Your task to perform on an android device: toggle show notifications on the lock screen Image 0: 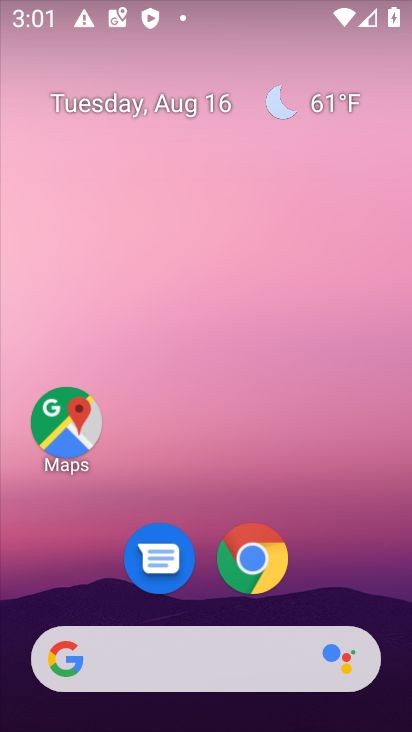
Step 0: drag from (393, 639) to (340, 192)
Your task to perform on an android device: toggle show notifications on the lock screen Image 1: 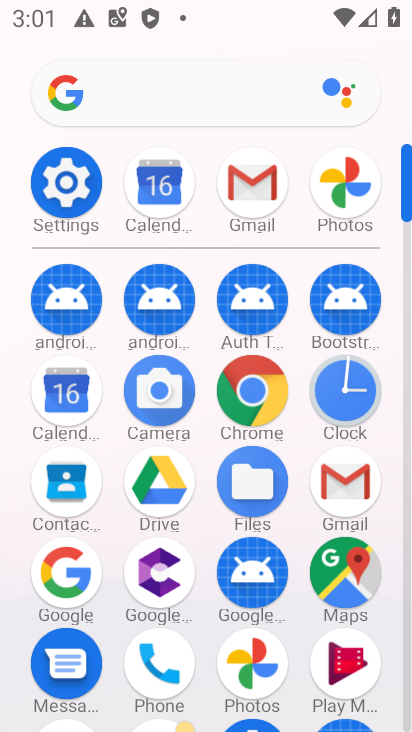
Step 1: click (405, 666)
Your task to perform on an android device: toggle show notifications on the lock screen Image 2: 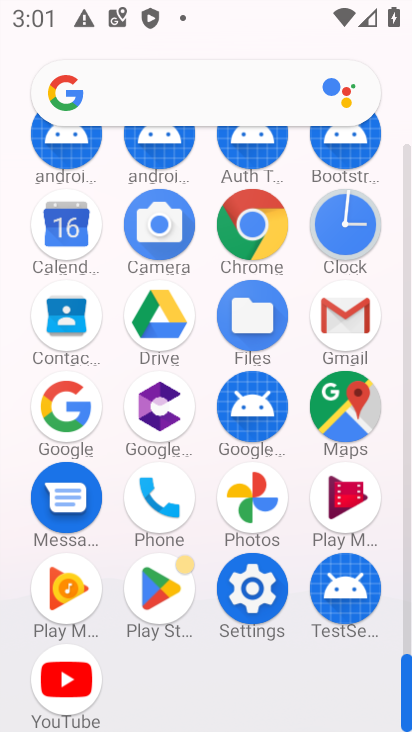
Step 2: click (253, 590)
Your task to perform on an android device: toggle show notifications on the lock screen Image 3: 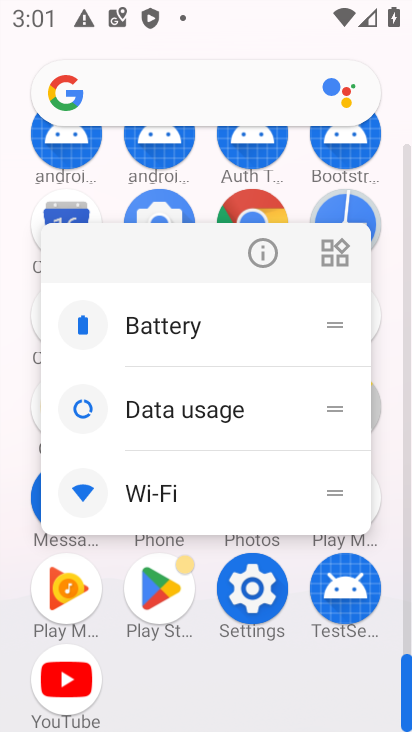
Step 3: click (253, 590)
Your task to perform on an android device: toggle show notifications on the lock screen Image 4: 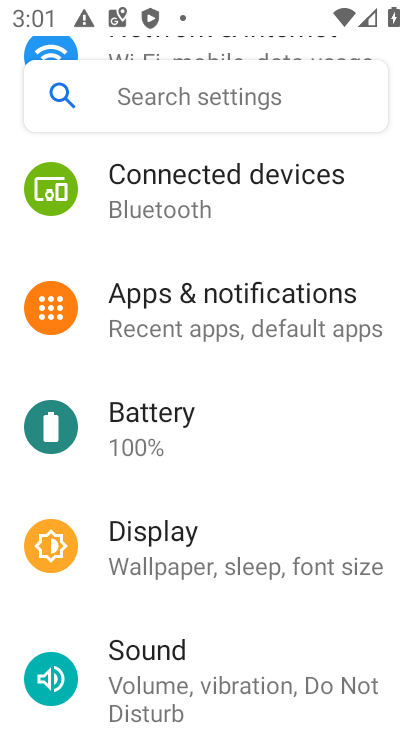
Step 4: click (198, 306)
Your task to perform on an android device: toggle show notifications on the lock screen Image 5: 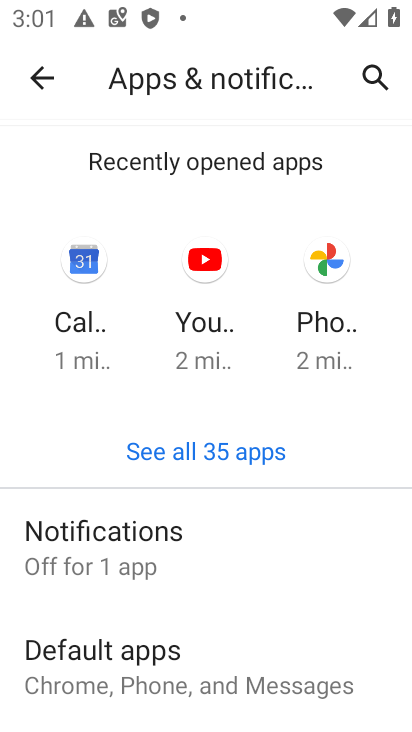
Step 5: drag from (305, 643) to (303, 344)
Your task to perform on an android device: toggle show notifications on the lock screen Image 6: 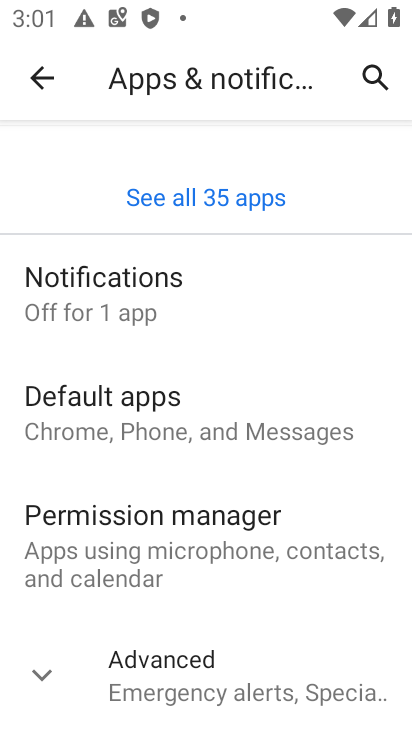
Step 6: click (97, 272)
Your task to perform on an android device: toggle show notifications on the lock screen Image 7: 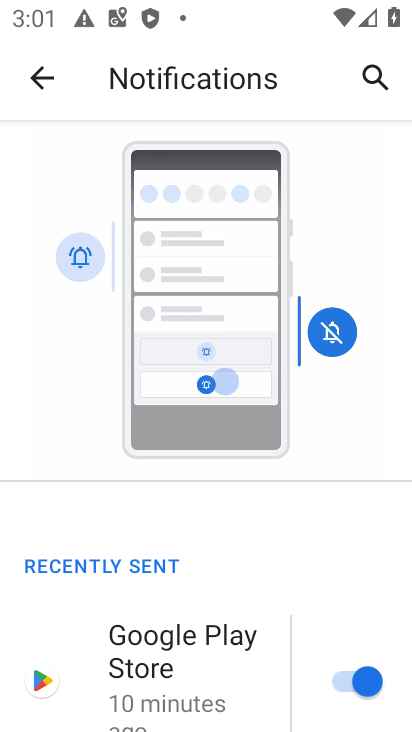
Step 7: drag from (273, 601) to (266, 168)
Your task to perform on an android device: toggle show notifications on the lock screen Image 8: 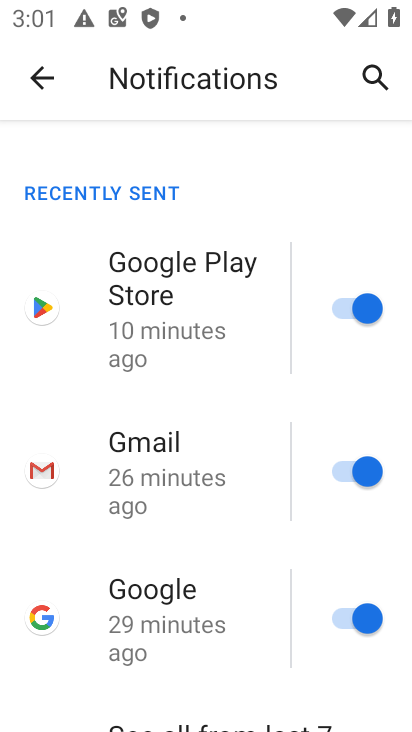
Step 8: drag from (296, 682) to (274, 319)
Your task to perform on an android device: toggle show notifications on the lock screen Image 9: 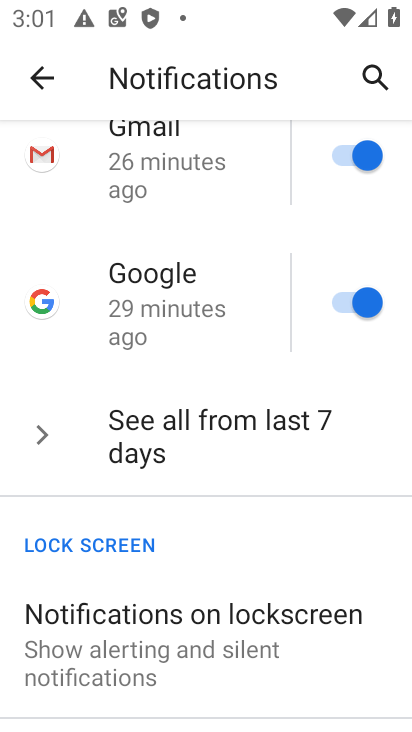
Step 9: drag from (285, 578) to (278, 262)
Your task to perform on an android device: toggle show notifications on the lock screen Image 10: 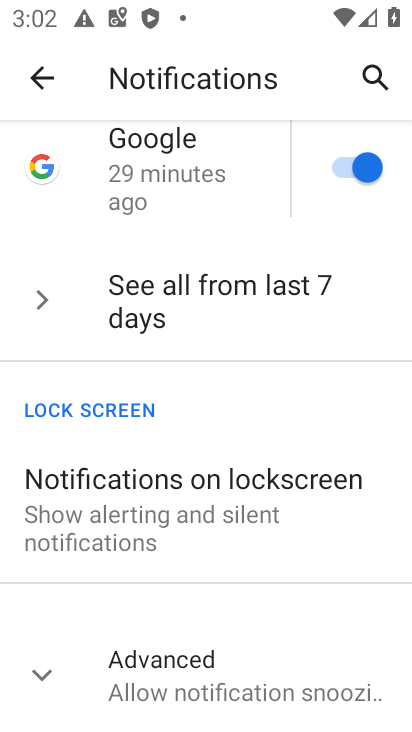
Step 10: click (172, 491)
Your task to perform on an android device: toggle show notifications on the lock screen Image 11: 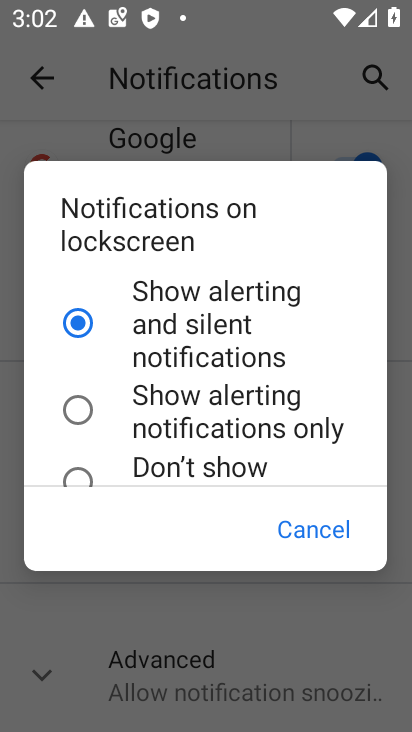
Step 11: click (84, 404)
Your task to perform on an android device: toggle show notifications on the lock screen Image 12: 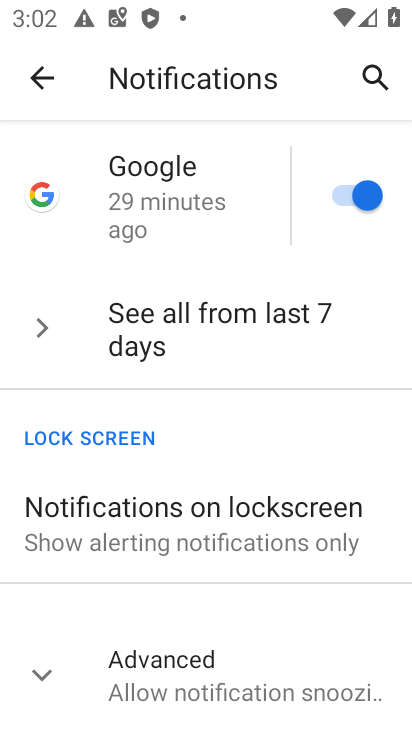
Step 12: task complete